Your task to perform on an android device: empty trash in the gmail app Image 0: 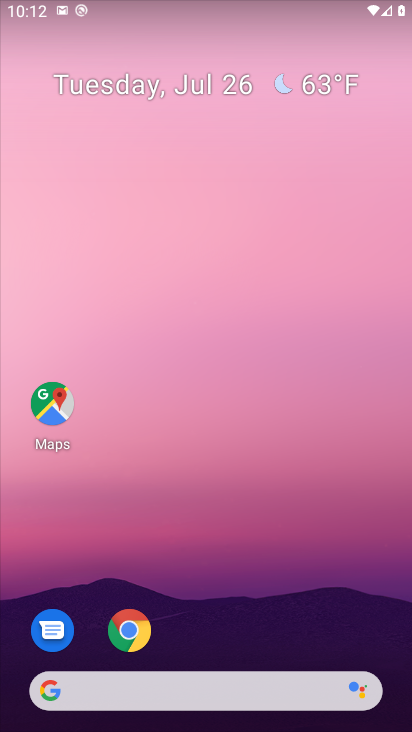
Step 0: drag from (212, 645) to (195, 141)
Your task to perform on an android device: empty trash in the gmail app Image 1: 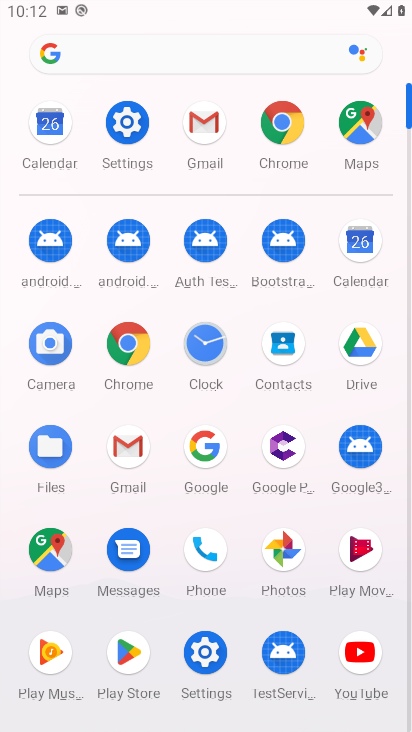
Step 1: click (124, 434)
Your task to perform on an android device: empty trash in the gmail app Image 2: 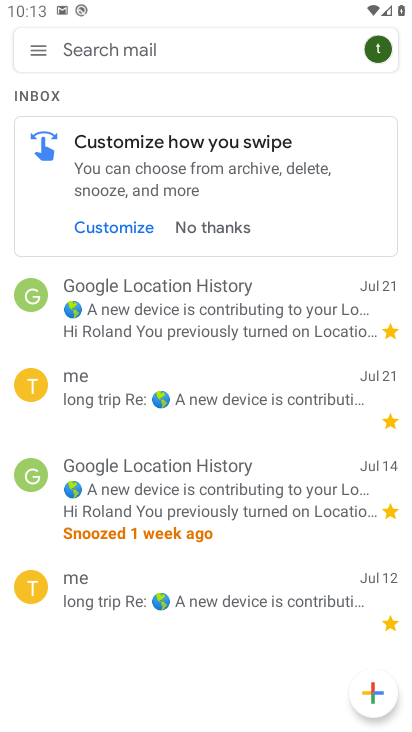
Step 2: click (35, 47)
Your task to perform on an android device: empty trash in the gmail app Image 3: 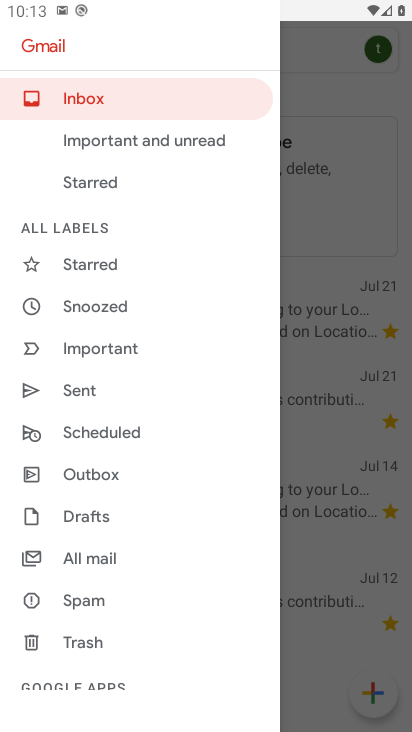
Step 3: click (53, 643)
Your task to perform on an android device: empty trash in the gmail app Image 4: 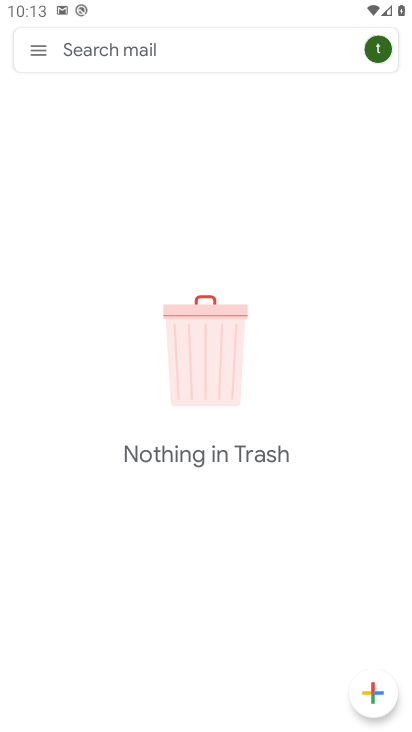
Step 4: task complete